Your task to perform on an android device: change the clock style Image 0: 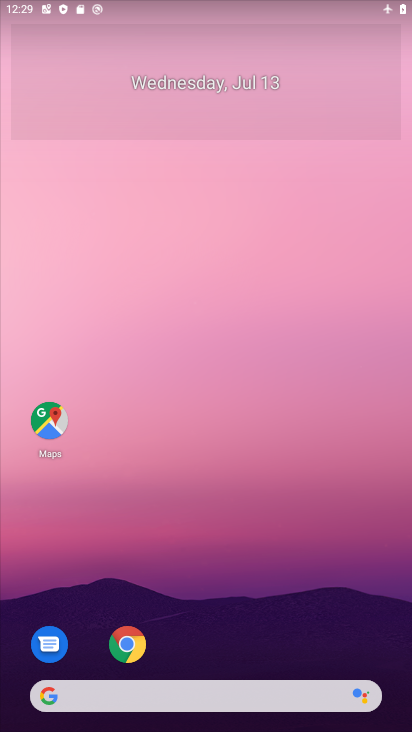
Step 0: drag from (232, 594) to (209, 167)
Your task to perform on an android device: change the clock style Image 1: 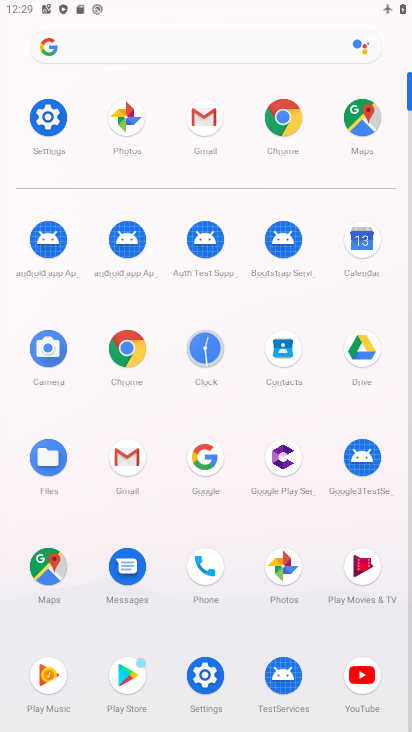
Step 1: click (208, 348)
Your task to perform on an android device: change the clock style Image 2: 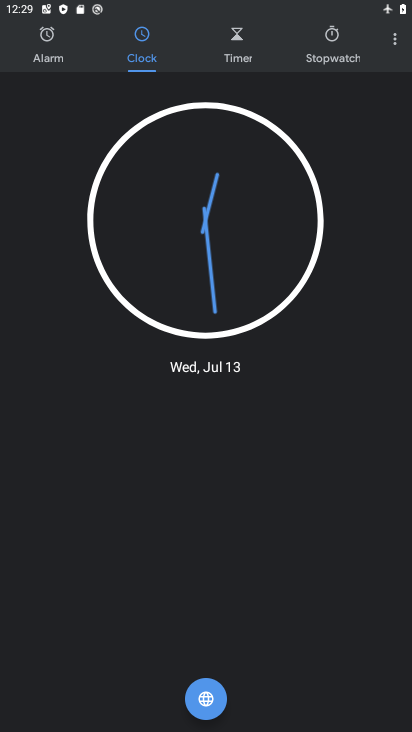
Step 2: click (395, 33)
Your task to perform on an android device: change the clock style Image 3: 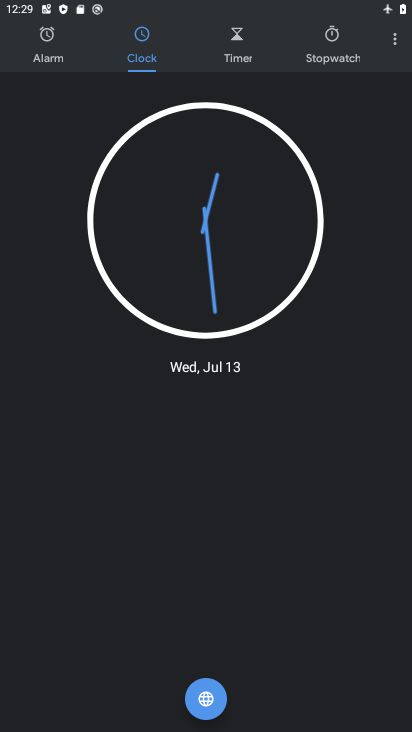
Step 3: click (395, 44)
Your task to perform on an android device: change the clock style Image 4: 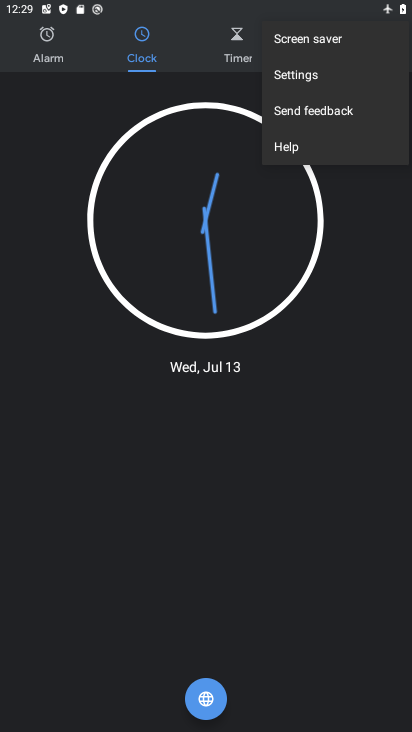
Step 4: click (292, 74)
Your task to perform on an android device: change the clock style Image 5: 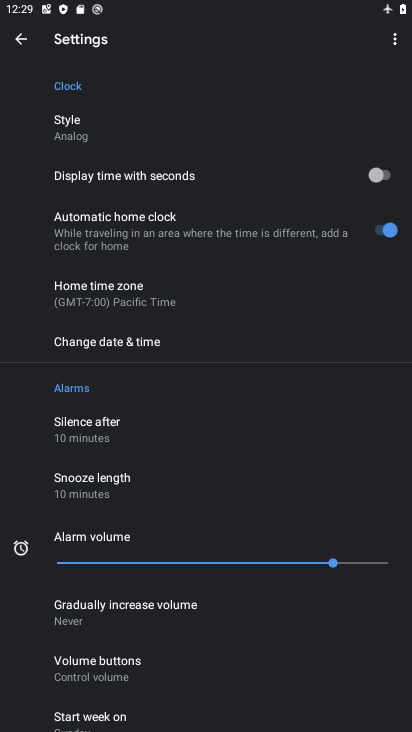
Step 5: click (85, 130)
Your task to perform on an android device: change the clock style Image 6: 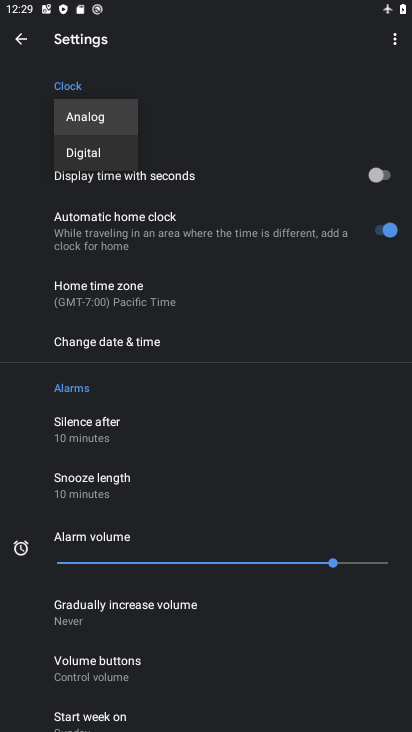
Step 6: click (100, 159)
Your task to perform on an android device: change the clock style Image 7: 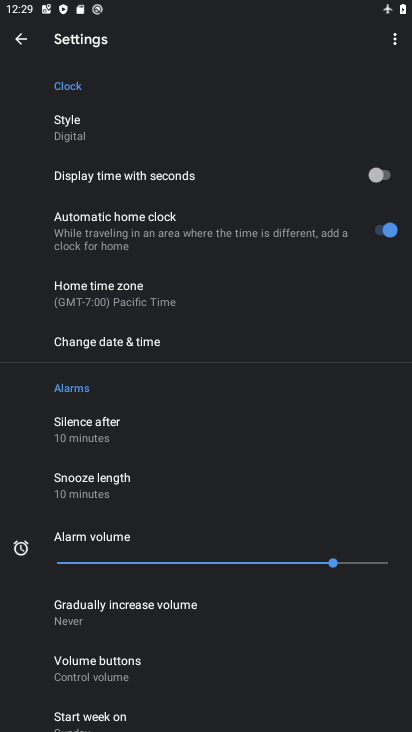
Step 7: task complete